Your task to perform on an android device: Open Amazon Image 0: 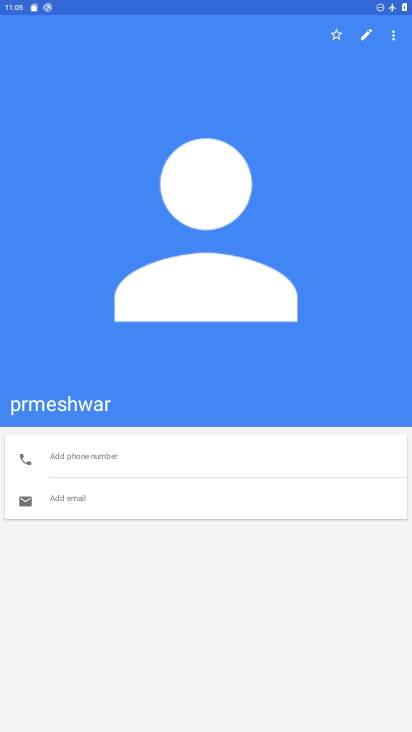
Step 0: press home button
Your task to perform on an android device: Open Amazon Image 1: 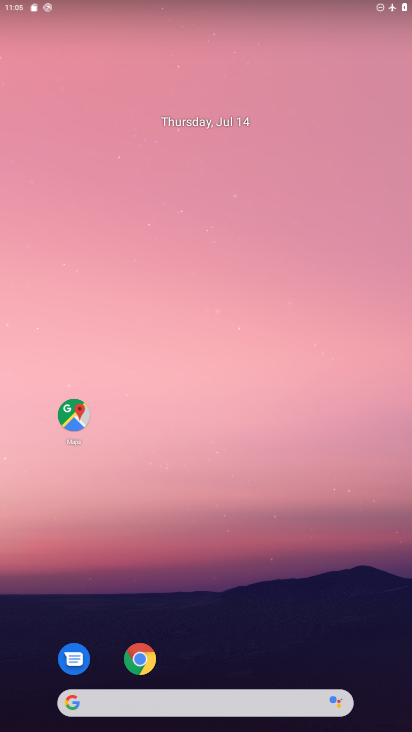
Step 1: drag from (272, 588) to (206, 109)
Your task to perform on an android device: Open Amazon Image 2: 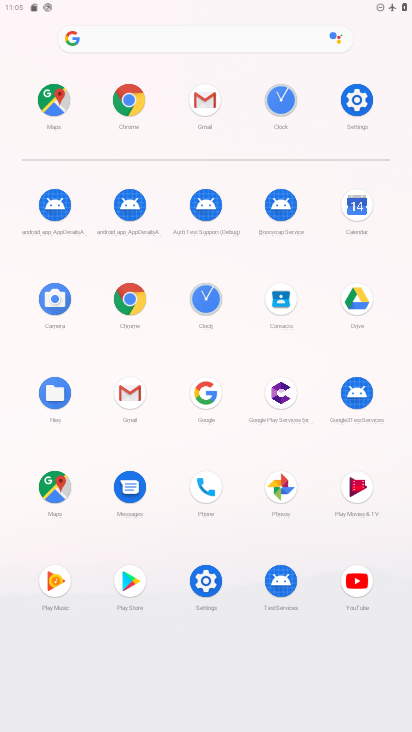
Step 2: click (133, 100)
Your task to perform on an android device: Open Amazon Image 3: 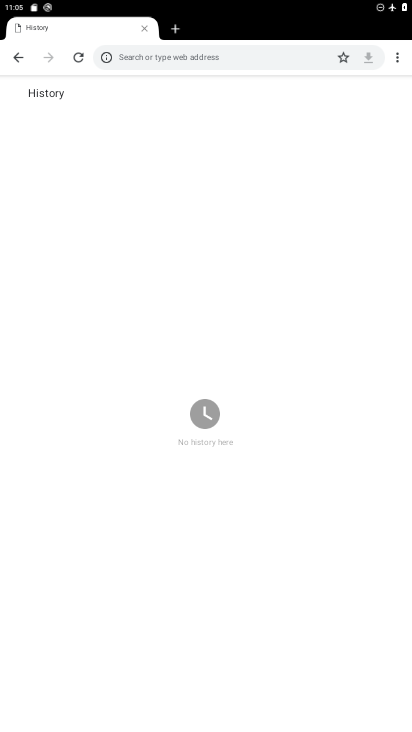
Step 3: click (192, 66)
Your task to perform on an android device: Open Amazon Image 4: 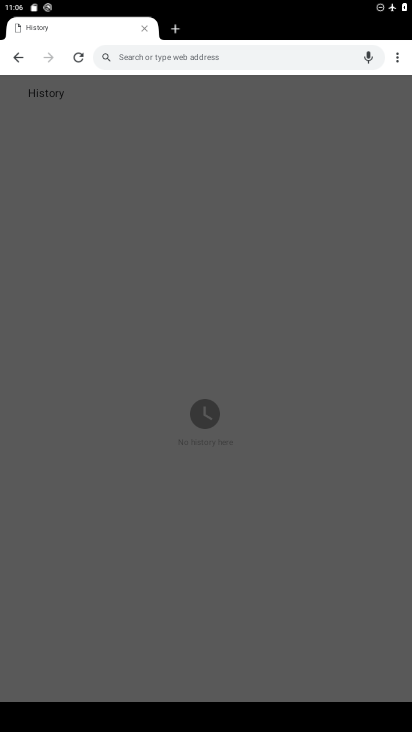
Step 4: type "amazpn"
Your task to perform on an android device: Open Amazon Image 5: 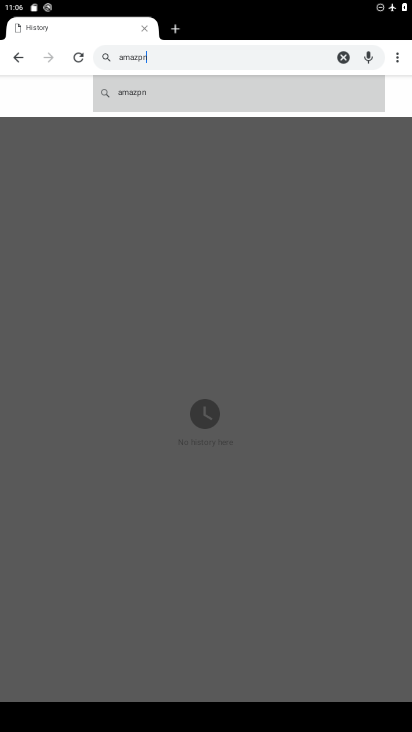
Step 5: click (139, 93)
Your task to perform on an android device: Open Amazon Image 6: 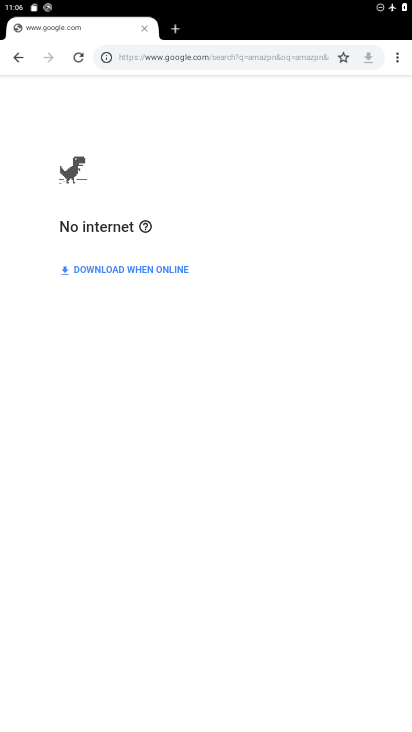
Step 6: task complete